Your task to perform on an android device: Toggle the flashlight Image 0: 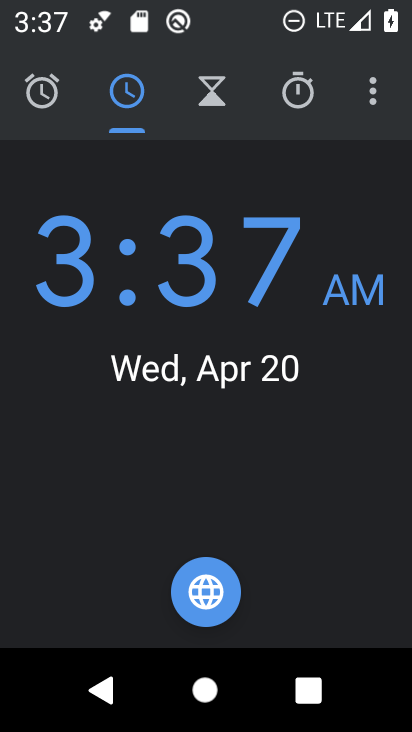
Step 0: press home button
Your task to perform on an android device: Toggle the flashlight Image 1: 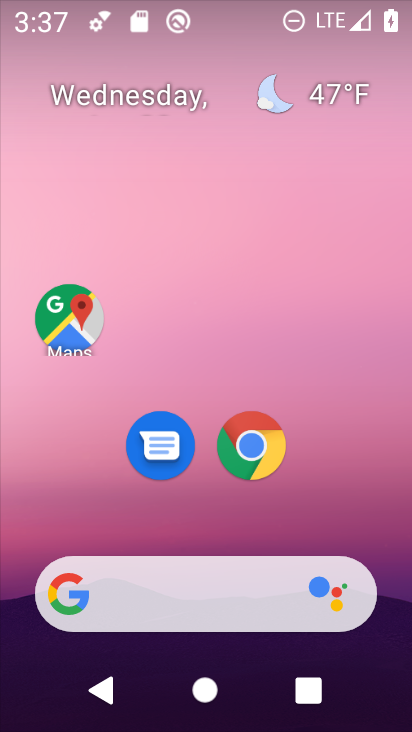
Step 1: drag from (327, 523) to (299, 60)
Your task to perform on an android device: Toggle the flashlight Image 2: 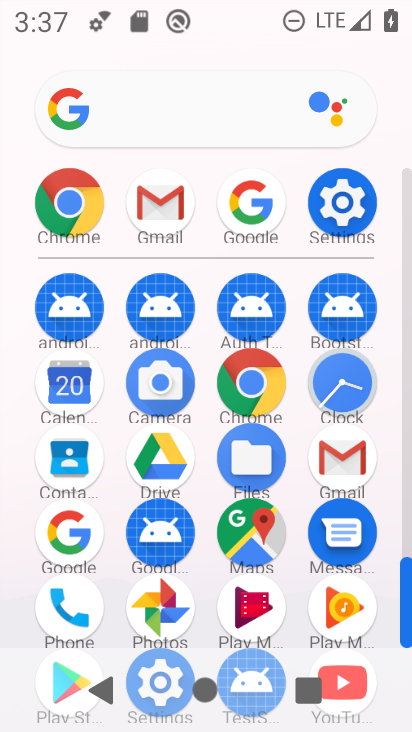
Step 2: click (341, 206)
Your task to perform on an android device: Toggle the flashlight Image 3: 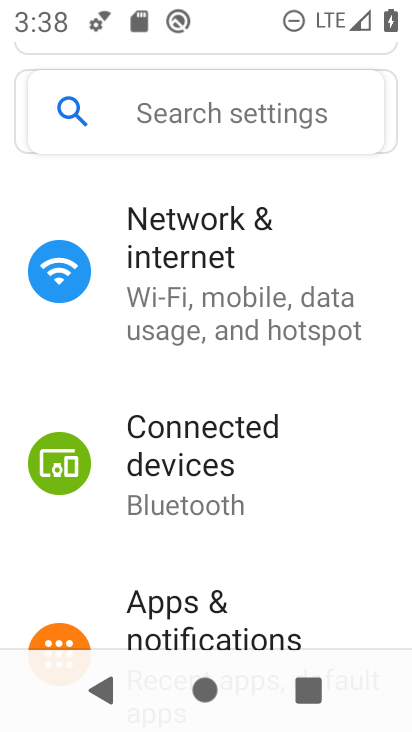
Step 3: drag from (221, 389) to (311, 266)
Your task to perform on an android device: Toggle the flashlight Image 4: 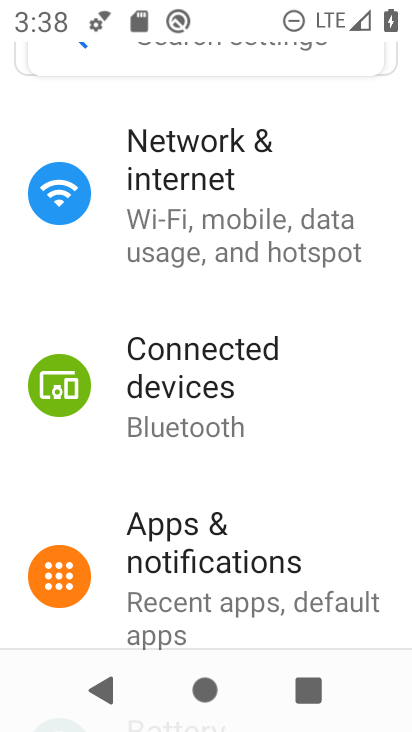
Step 4: drag from (272, 452) to (306, 345)
Your task to perform on an android device: Toggle the flashlight Image 5: 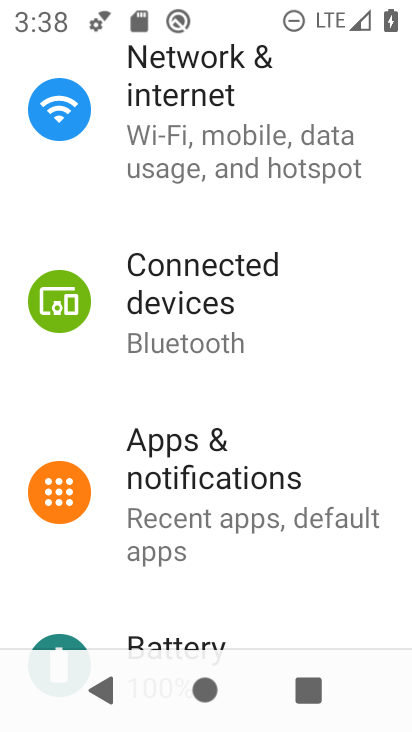
Step 5: drag from (269, 422) to (327, 341)
Your task to perform on an android device: Toggle the flashlight Image 6: 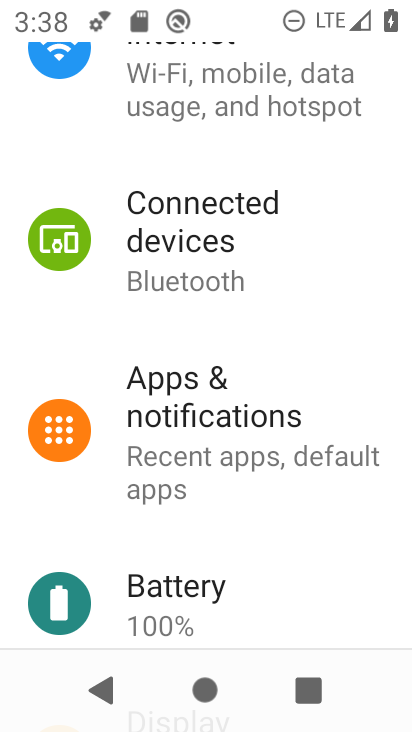
Step 6: drag from (268, 509) to (341, 362)
Your task to perform on an android device: Toggle the flashlight Image 7: 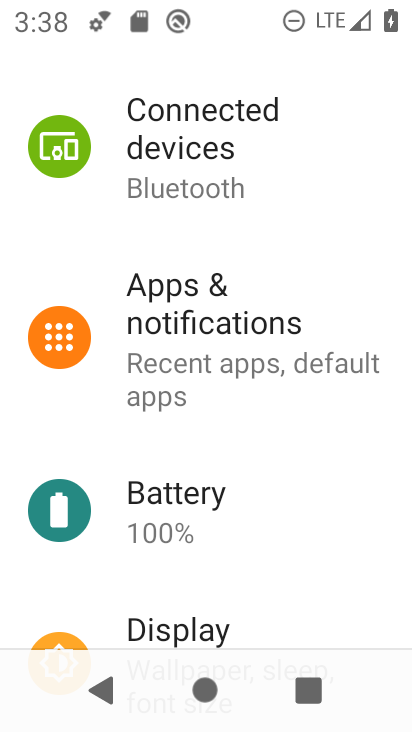
Step 7: drag from (251, 544) to (359, 405)
Your task to perform on an android device: Toggle the flashlight Image 8: 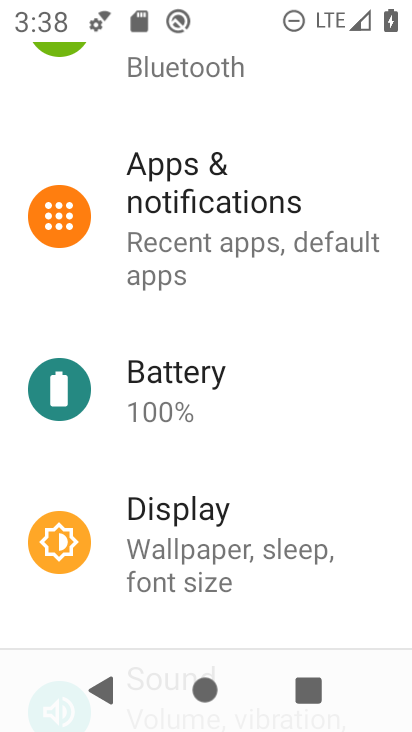
Step 8: click (282, 558)
Your task to perform on an android device: Toggle the flashlight Image 9: 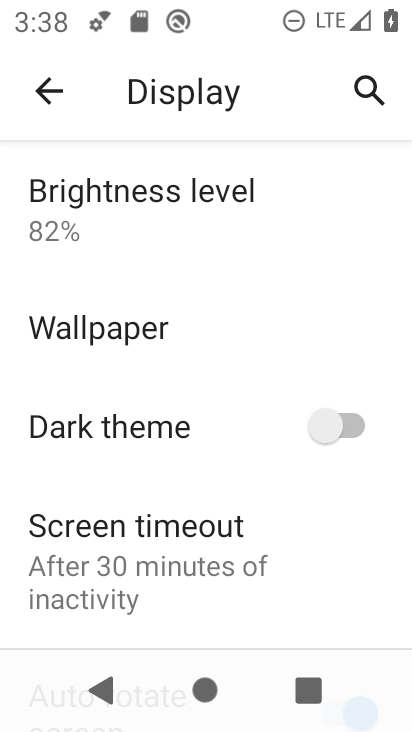
Step 9: drag from (229, 473) to (263, 355)
Your task to perform on an android device: Toggle the flashlight Image 10: 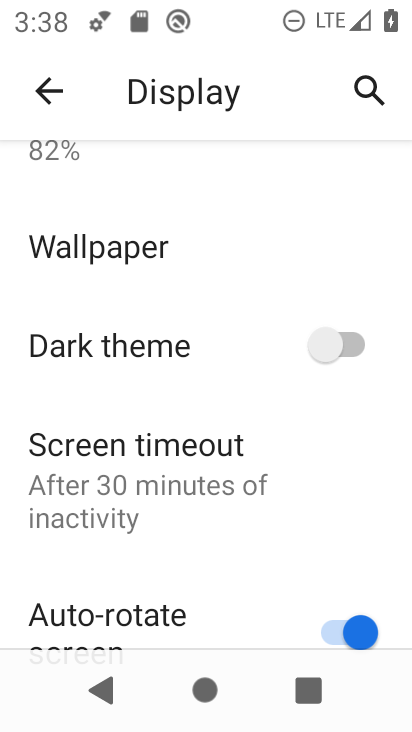
Step 10: drag from (216, 563) to (256, 380)
Your task to perform on an android device: Toggle the flashlight Image 11: 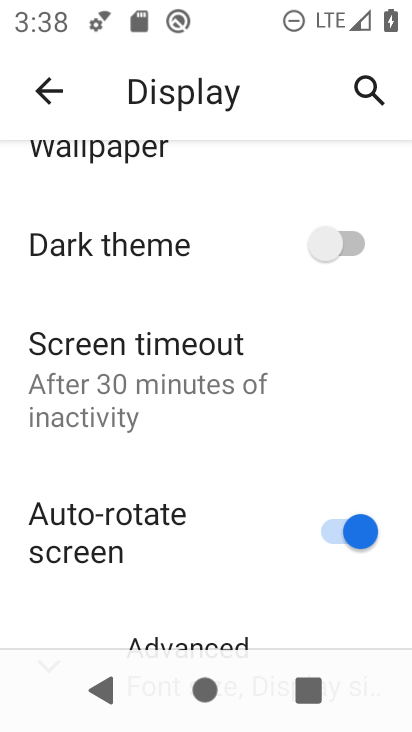
Step 11: drag from (227, 580) to (269, 410)
Your task to perform on an android device: Toggle the flashlight Image 12: 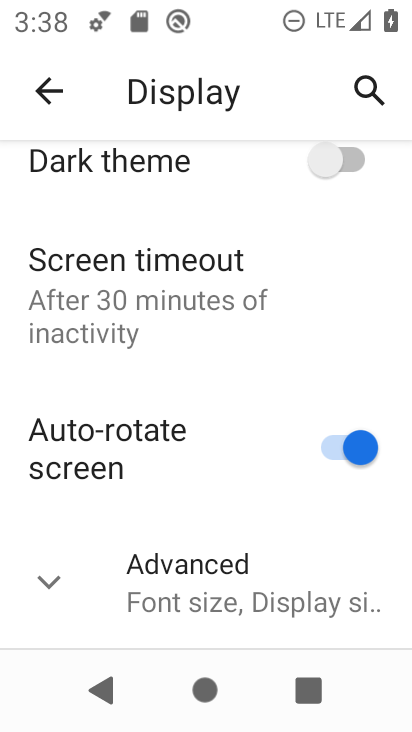
Step 12: click (274, 573)
Your task to perform on an android device: Toggle the flashlight Image 13: 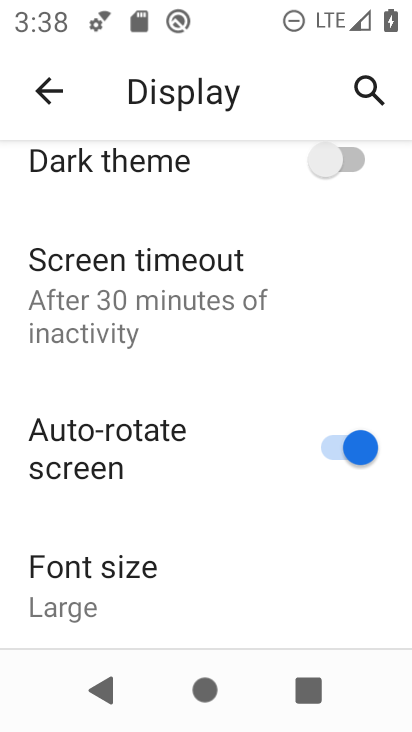
Step 13: drag from (236, 617) to (289, 339)
Your task to perform on an android device: Toggle the flashlight Image 14: 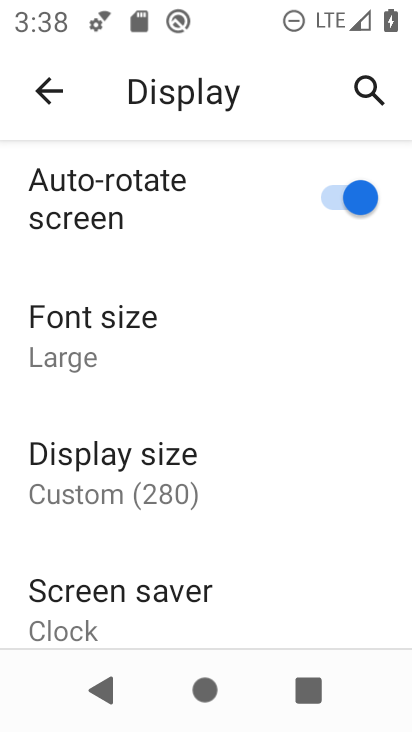
Step 14: drag from (223, 575) to (299, 308)
Your task to perform on an android device: Toggle the flashlight Image 15: 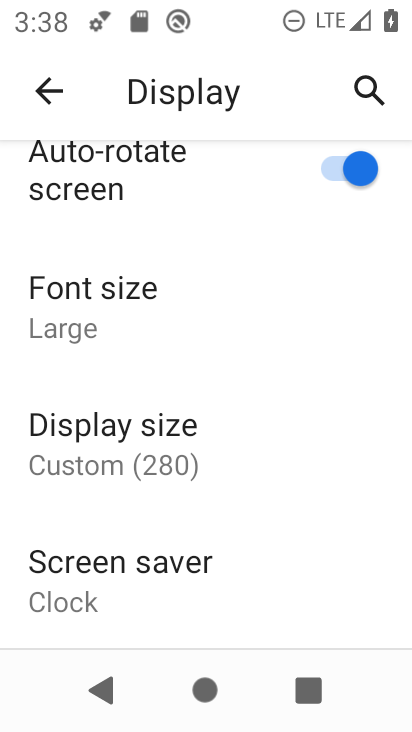
Step 15: press back button
Your task to perform on an android device: Toggle the flashlight Image 16: 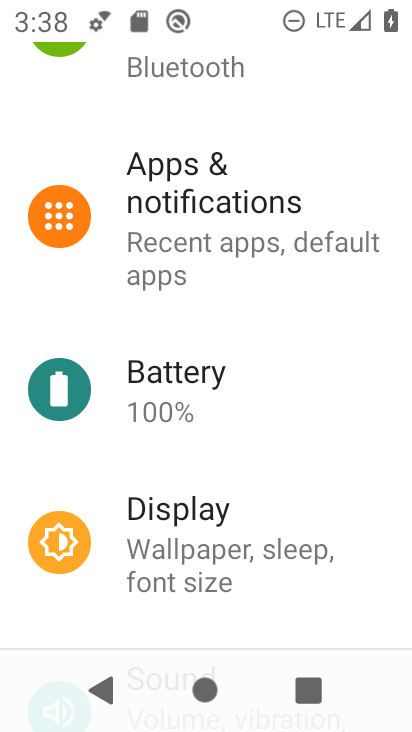
Step 16: drag from (223, 480) to (272, 296)
Your task to perform on an android device: Toggle the flashlight Image 17: 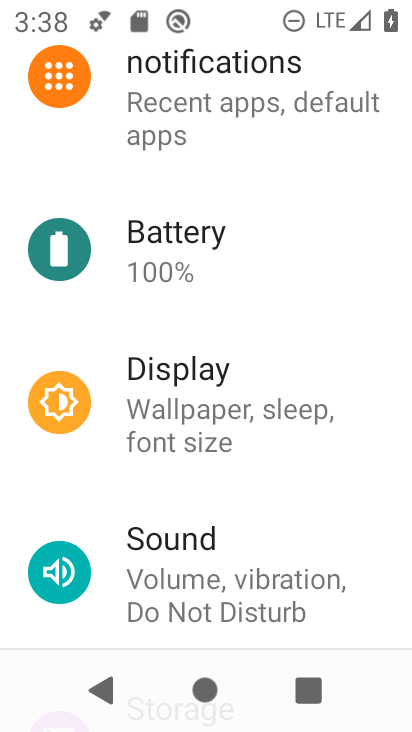
Step 17: drag from (258, 500) to (274, 308)
Your task to perform on an android device: Toggle the flashlight Image 18: 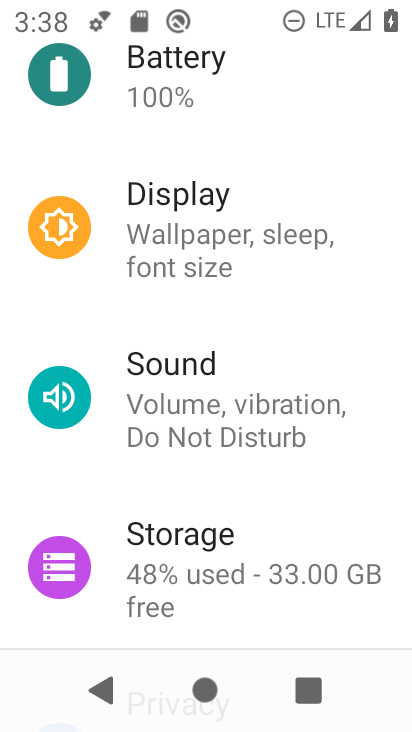
Step 18: drag from (219, 496) to (248, 326)
Your task to perform on an android device: Toggle the flashlight Image 19: 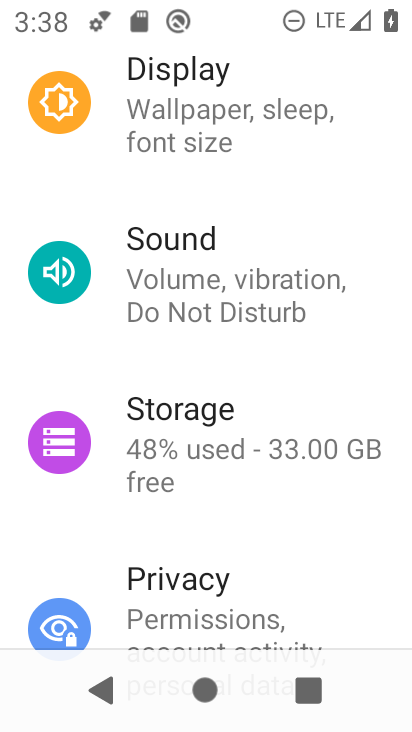
Step 19: drag from (261, 421) to (291, 260)
Your task to perform on an android device: Toggle the flashlight Image 20: 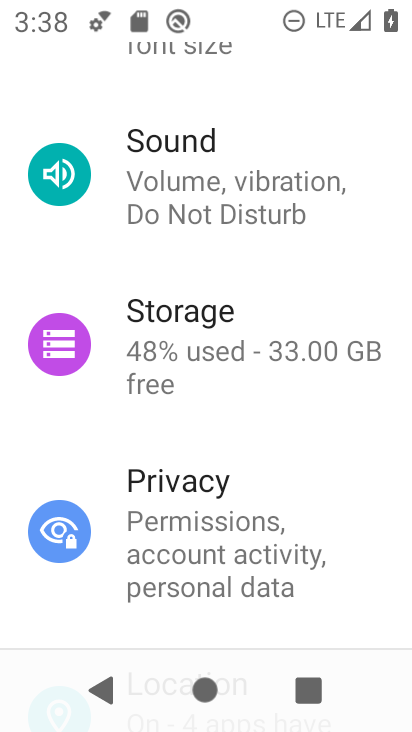
Step 20: drag from (276, 434) to (288, 301)
Your task to perform on an android device: Toggle the flashlight Image 21: 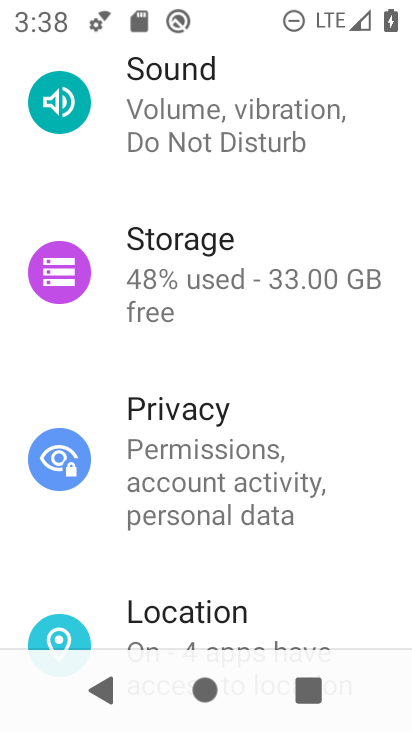
Step 21: drag from (264, 422) to (281, 273)
Your task to perform on an android device: Toggle the flashlight Image 22: 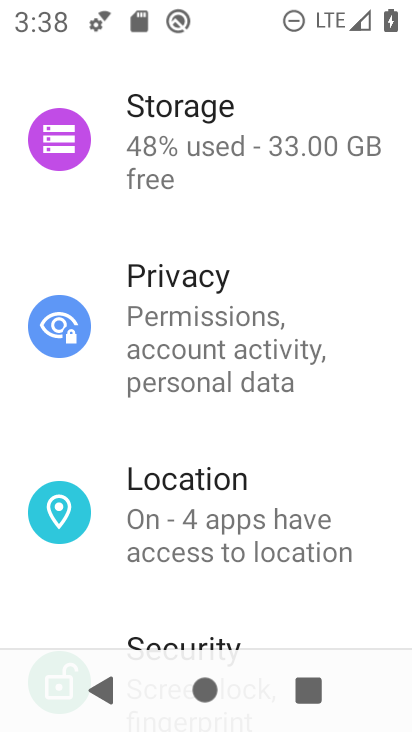
Step 22: drag from (246, 449) to (292, 319)
Your task to perform on an android device: Toggle the flashlight Image 23: 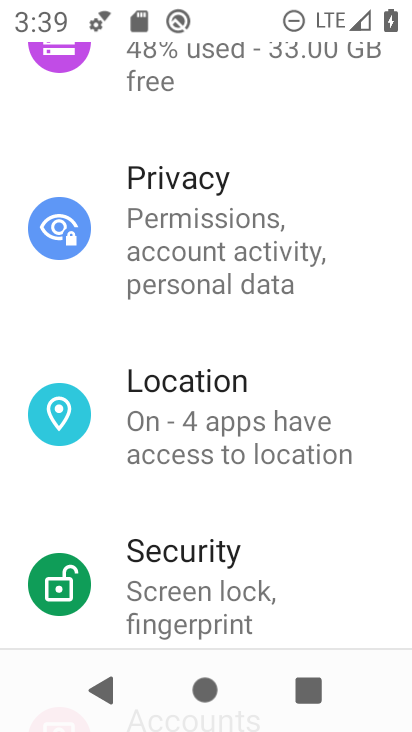
Step 23: drag from (250, 508) to (283, 365)
Your task to perform on an android device: Toggle the flashlight Image 24: 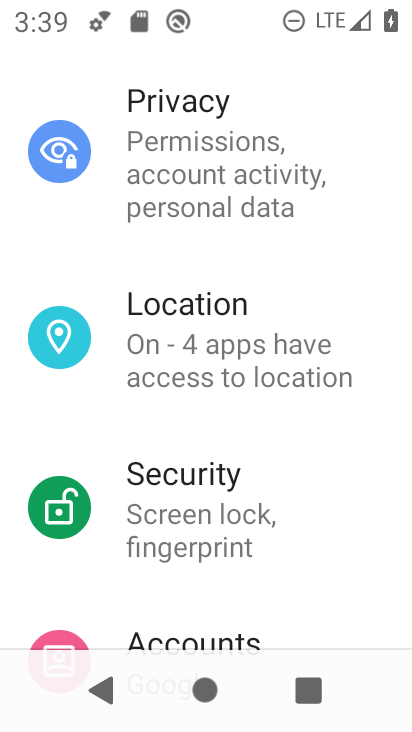
Step 24: drag from (273, 476) to (307, 331)
Your task to perform on an android device: Toggle the flashlight Image 25: 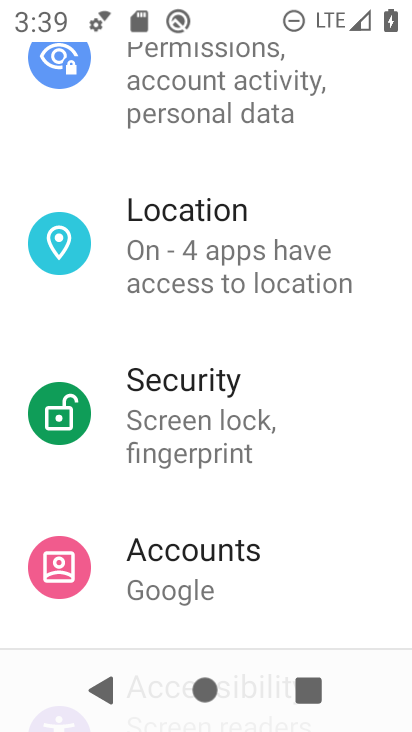
Step 25: drag from (256, 513) to (290, 397)
Your task to perform on an android device: Toggle the flashlight Image 26: 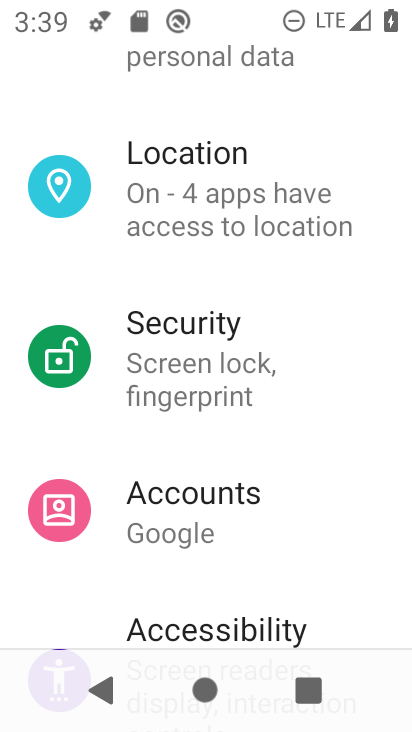
Step 26: drag from (269, 531) to (307, 394)
Your task to perform on an android device: Toggle the flashlight Image 27: 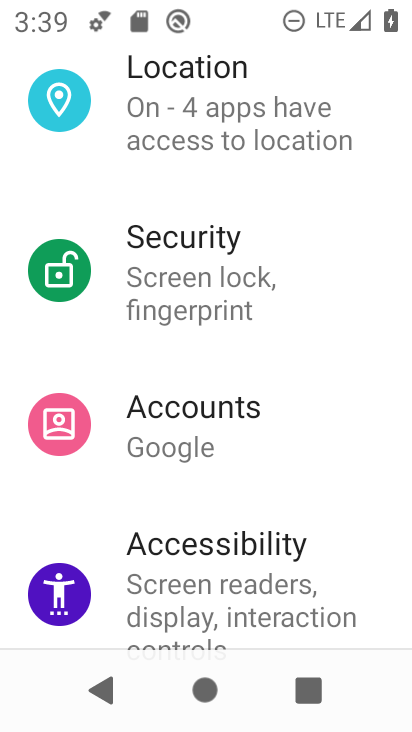
Step 27: drag from (279, 513) to (314, 383)
Your task to perform on an android device: Toggle the flashlight Image 28: 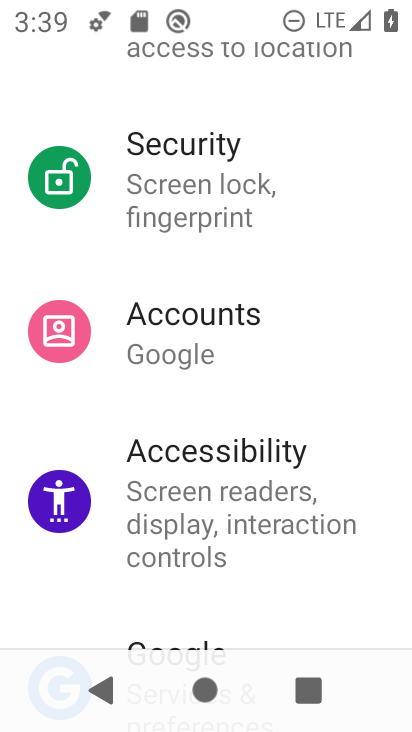
Step 28: drag from (269, 561) to (296, 420)
Your task to perform on an android device: Toggle the flashlight Image 29: 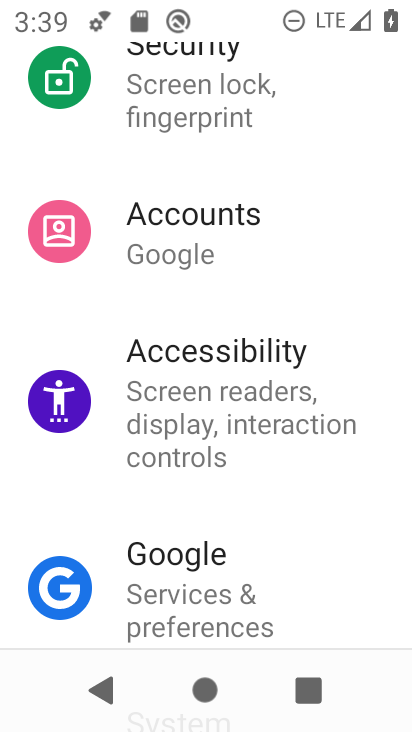
Step 29: click (257, 363)
Your task to perform on an android device: Toggle the flashlight Image 30: 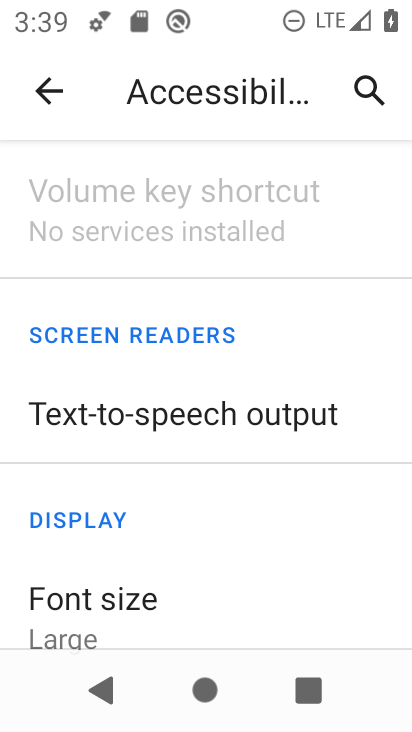
Step 30: drag from (184, 547) to (217, 393)
Your task to perform on an android device: Toggle the flashlight Image 31: 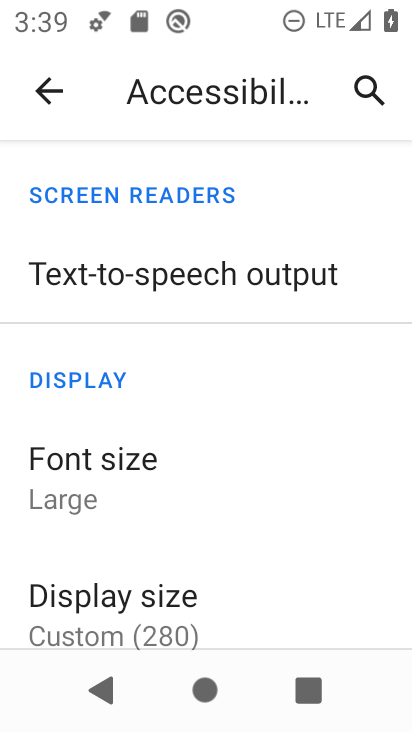
Step 31: drag from (213, 567) to (242, 413)
Your task to perform on an android device: Toggle the flashlight Image 32: 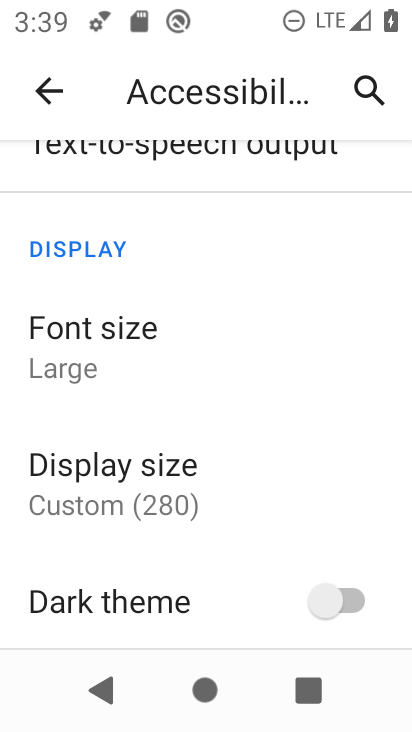
Step 32: drag from (232, 541) to (274, 400)
Your task to perform on an android device: Toggle the flashlight Image 33: 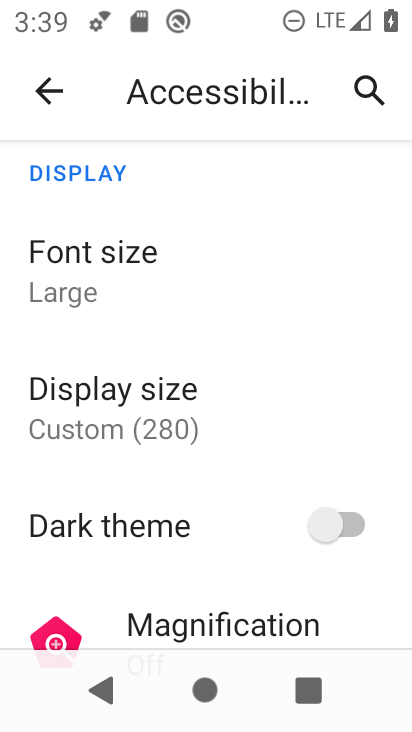
Step 33: drag from (227, 524) to (280, 374)
Your task to perform on an android device: Toggle the flashlight Image 34: 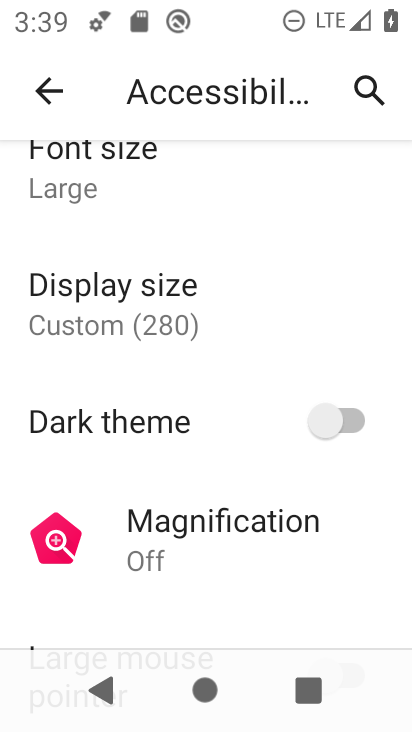
Step 34: drag from (235, 603) to (258, 415)
Your task to perform on an android device: Toggle the flashlight Image 35: 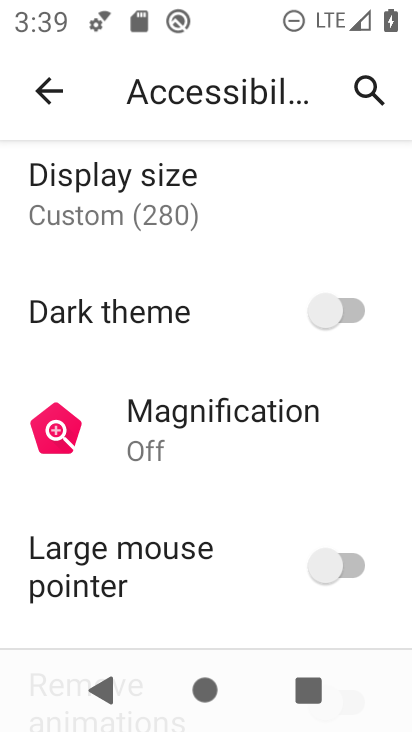
Step 35: drag from (248, 517) to (280, 350)
Your task to perform on an android device: Toggle the flashlight Image 36: 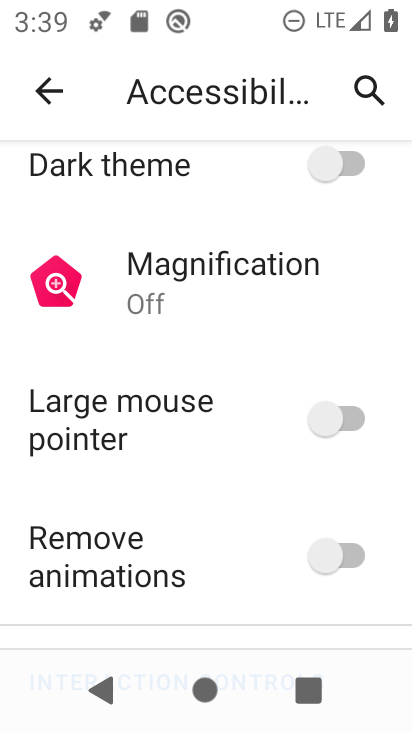
Step 36: drag from (196, 520) to (244, 371)
Your task to perform on an android device: Toggle the flashlight Image 37: 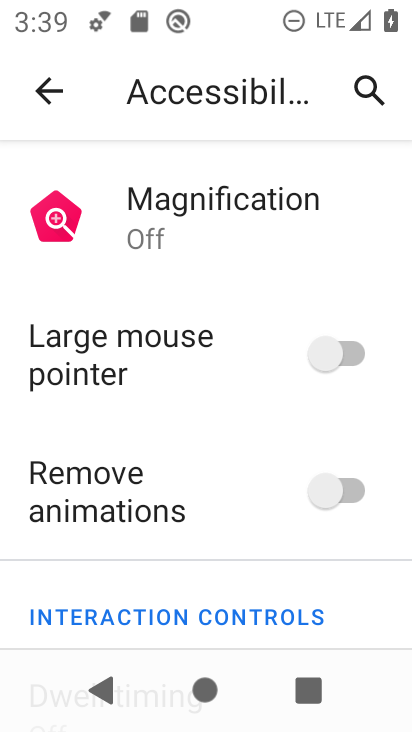
Step 37: drag from (173, 596) to (233, 419)
Your task to perform on an android device: Toggle the flashlight Image 38: 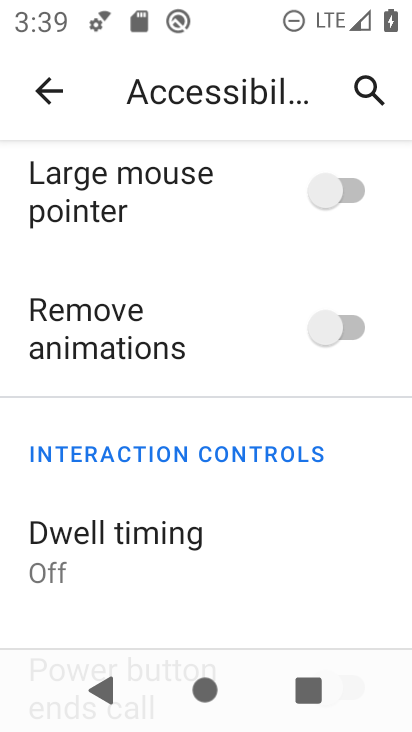
Step 38: drag from (236, 569) to (275, 431)
Your task to perform on an android device: Toggle the flashlight Image 39: 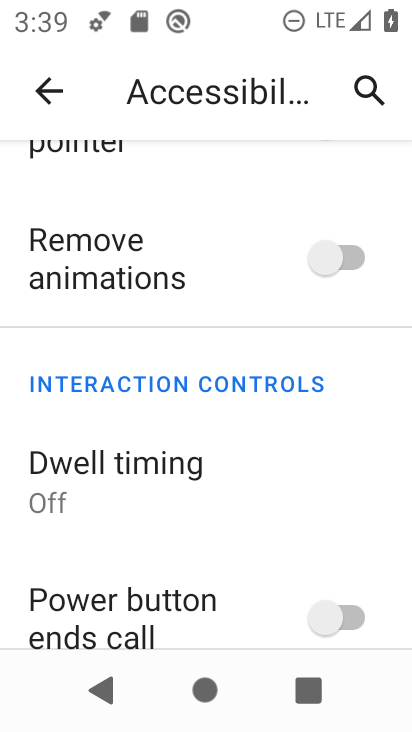
Step 39: click (277, 444)
Your task to perform on an android device: Toggle the flashlight Image 40: 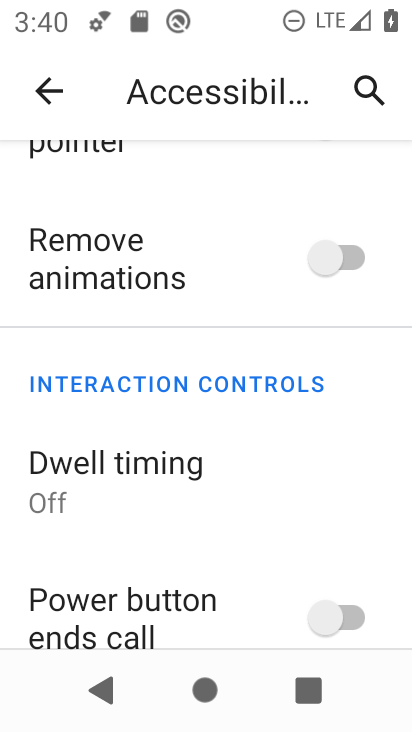
Step 40: task complete